Your task to perform on an android device: open sync settings in chrome Image 0: 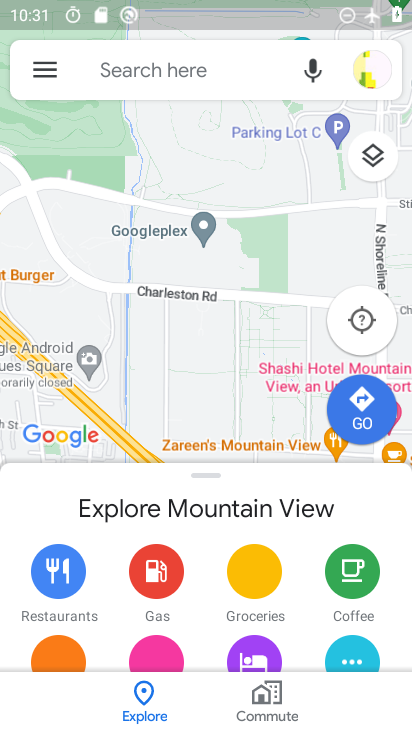
Step 0: press home button
Your task to perform on an android device: open sync settings in chrome Image 1: 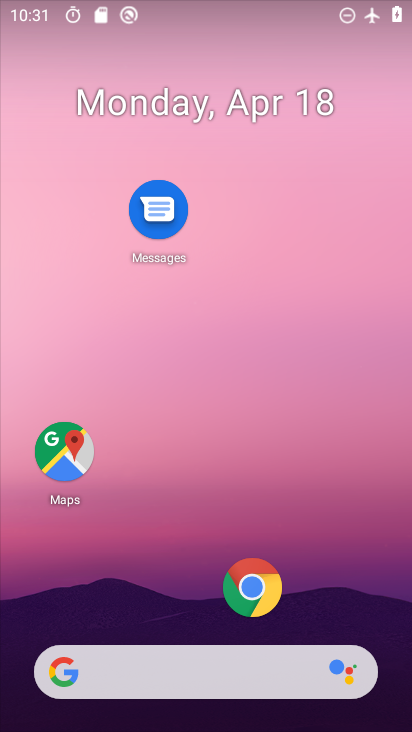
Step 1: click (252, 575)
Your task to perform on an android device: open sync settings in chrome Image 2: 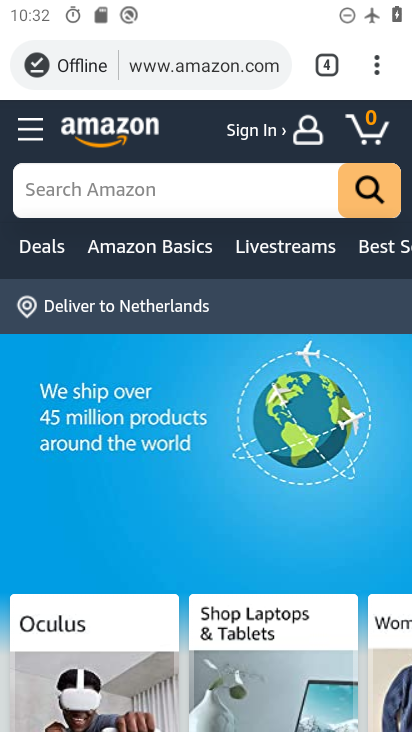
Step 2: click (380, 72)
Your task to perform on an android device: open sync settings in chrome Image 3: 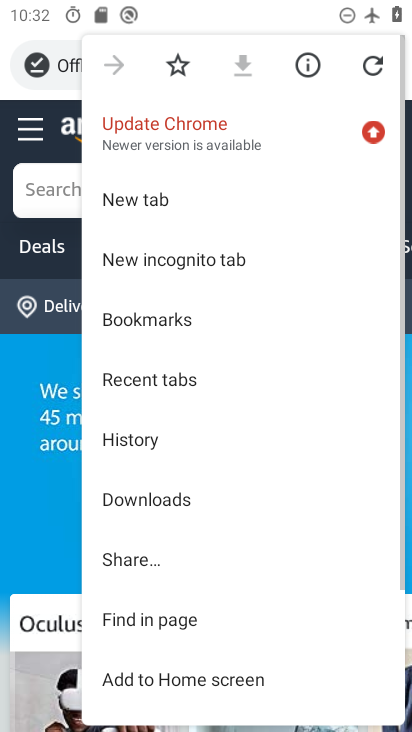
Step 3: drag from (175, 632) to (274, 212)
Your task to perform on an android device: open sync settings in chrome Image 4: 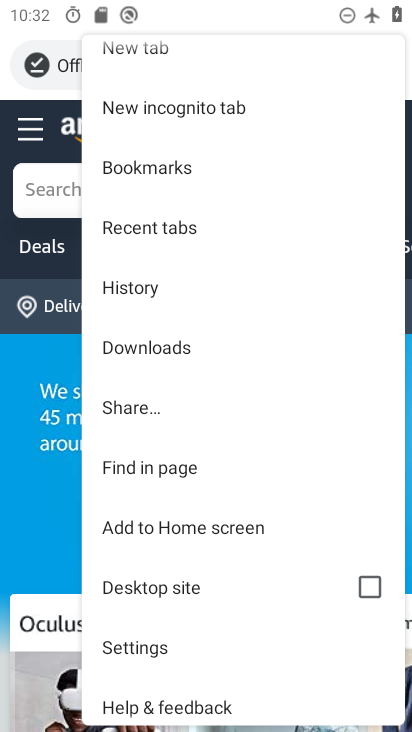
Step 4: click (129, 649)
Your task to perform on an android device: open sync settings in chrome Image 5: 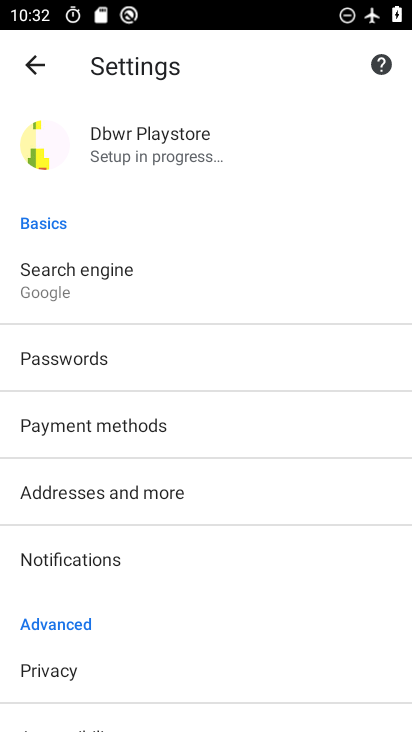
Step 5: click (165, 157)
Your task to perform on an android device: open sync settings in chrome Image 6: 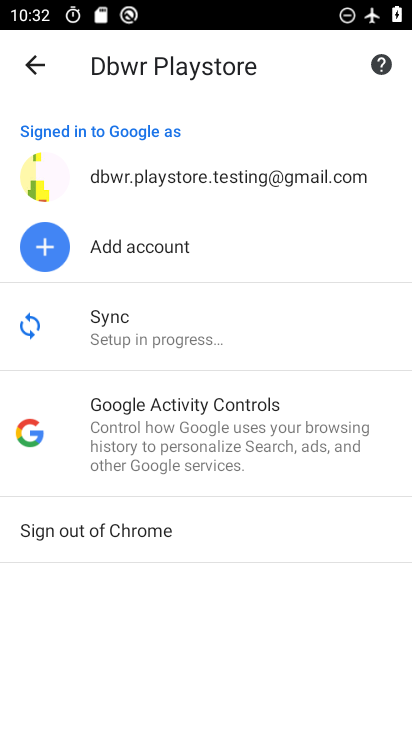
Step 6: click (161, 333)
Your task to perform on an android device: open sync settings in chrome Image 7: 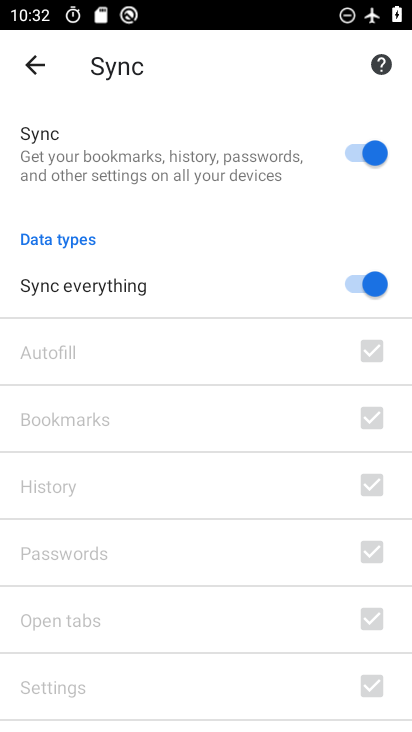
Step 7: task complete